Your task to perform on an android device: stop showing notifications on the lock screen Image 0: 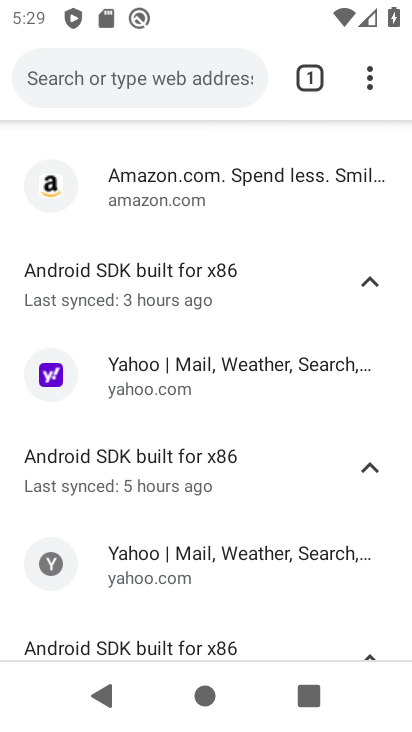
Step 0: press home button
Your task to perform on an android device: stop showing notifications on the lock screen Image 1: 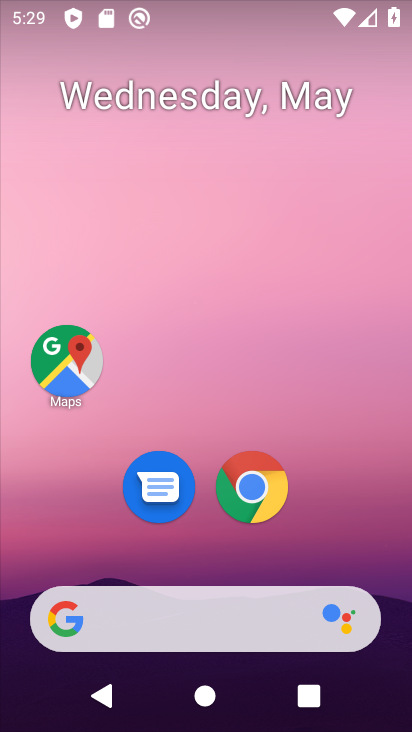
Step 1: click (264, 482)
Your task to perform on an android device: stop showing notifications on the lock screen Image 2: 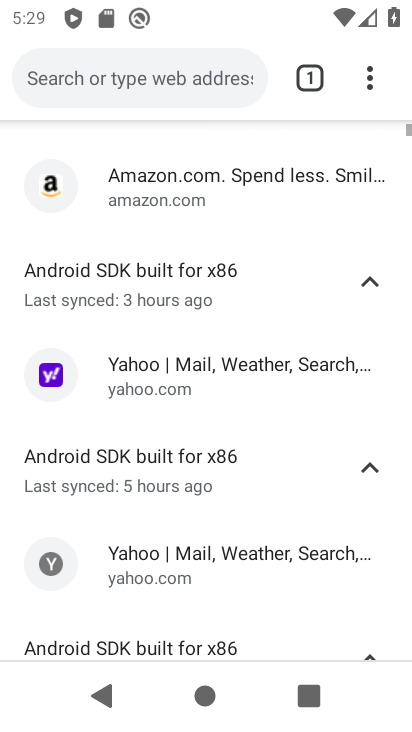
Step 2: press home button
Your task to perform on an android device: stop showing notifications on the lock screen Image 3: 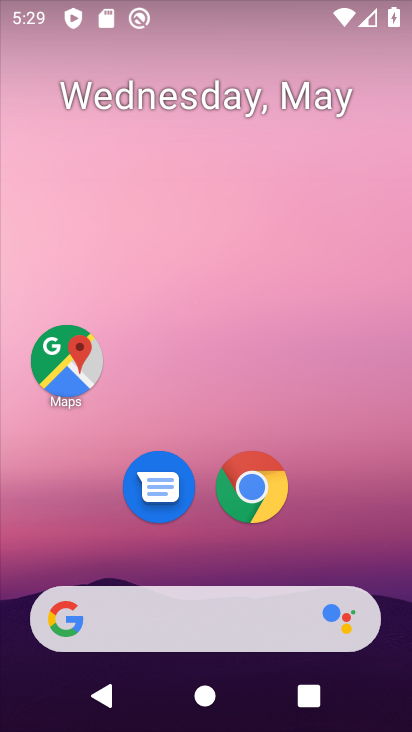
Step 3: drag from (226, 547) to (242, 52)
Your task to perform on an android device: stop showing notifications on the lock screen Image 4: 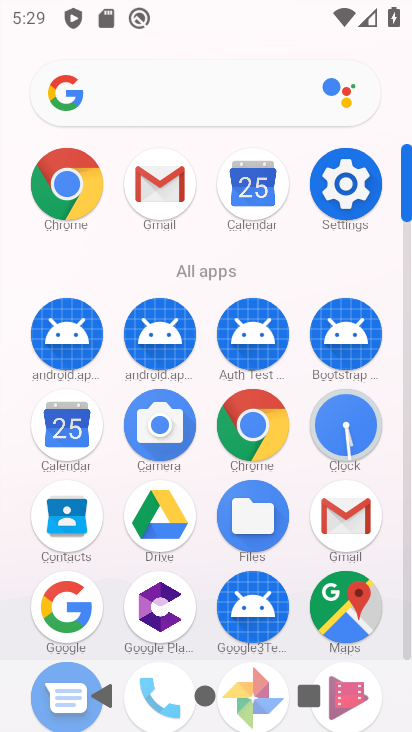
Step 4: click (332, 183)
Your task to perform on an android device: stop showing notifications on the lock screen Image 5: 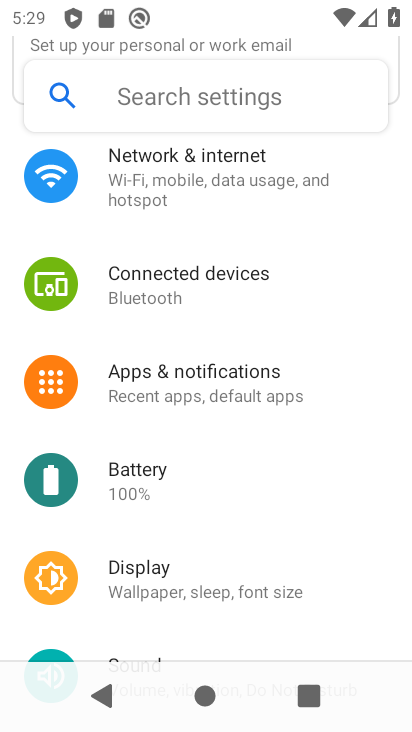
Step 5: click (182, 393)
Your task to perform on an android device: stop showing notifications on the lock screen Image 6: 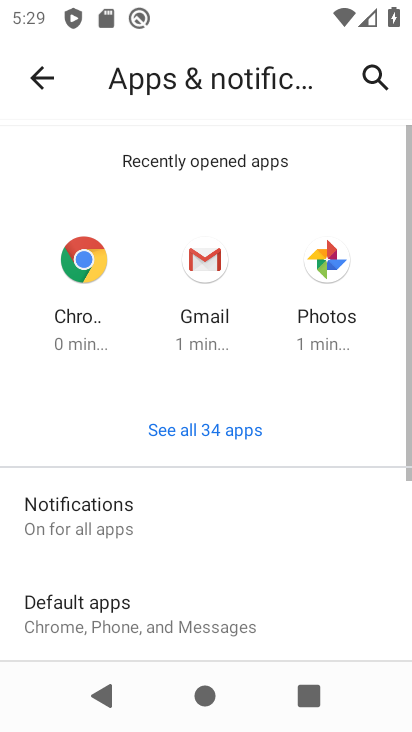
Step 6: click (114, 535)
Your task to perform on an android device: stop showing notifications on the lock screen Image 7: 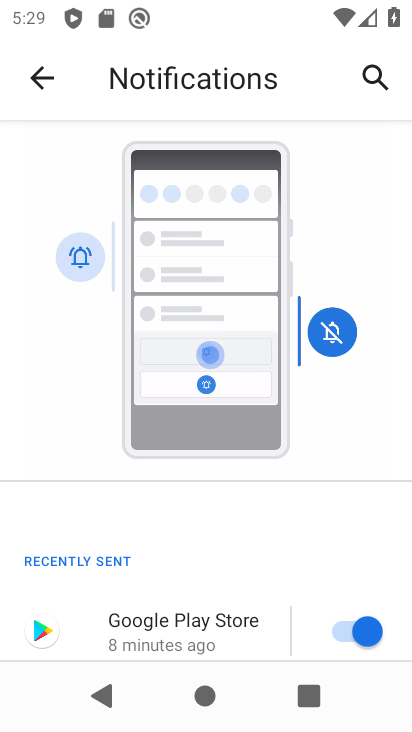
Step 7: drag from (173, 615) to (175, 290)
Your task to perform on an android device: stop showing notifications on the lock screen Image 8: 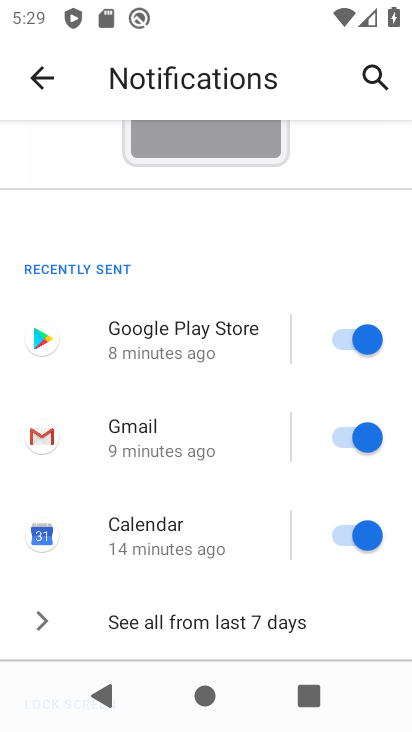
Step 8: drag from (186, 613) to (181, 258)
Your task to perform on an android device: stop showing notifications on the lock screen Image 9: 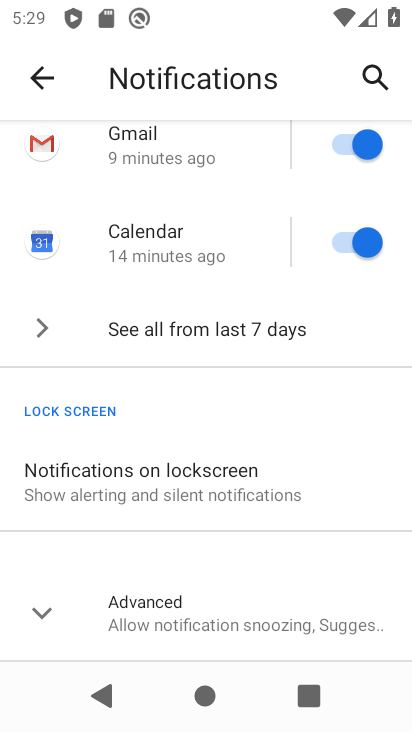
Step 9: click (104, 497)
Your task to perform on an android device: stop showing notifications on the lock screen Image 10: 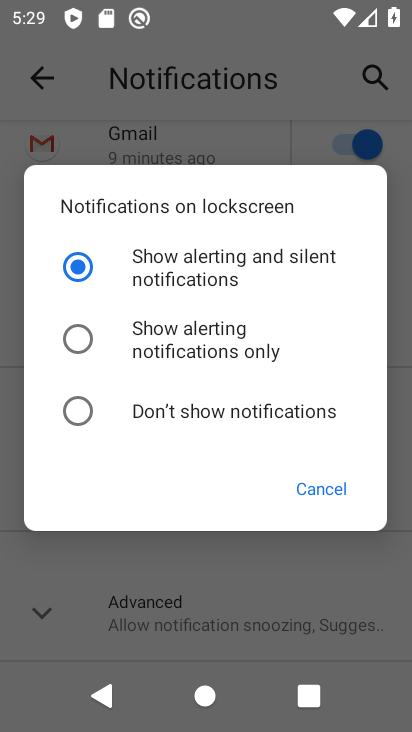
Step 10: click (73, 404)
Your task to perform on an android device: stop showing notifications on the lock screen Image 11: 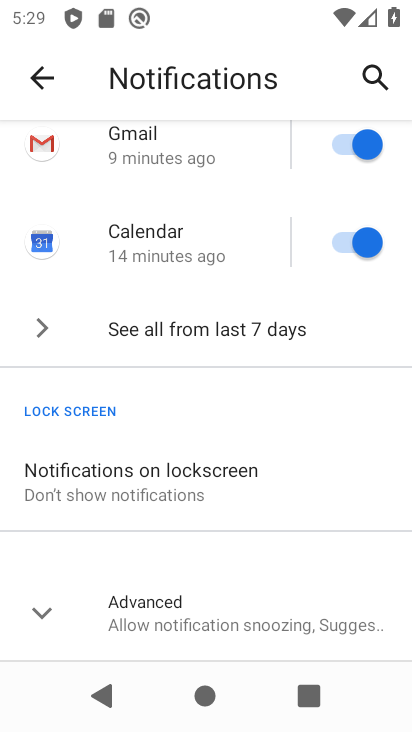
Step 11: task complete